Your task to perform on an android device: open a bookmark in the chrome app Image 0: 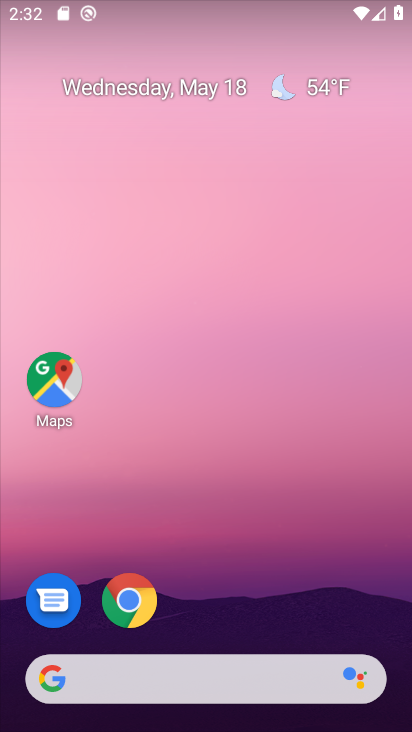
Step 0: click (145, 606)
Your task to perform on an android device: open a bookmark in the chrome app Image 1: 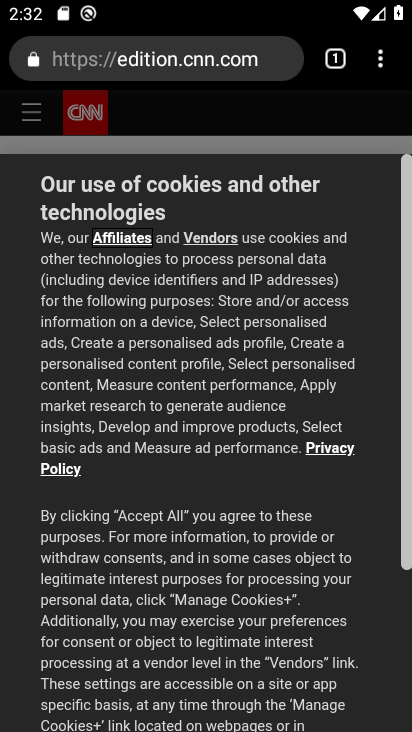
Step 1: click (379, 67)
Your task to perform on an android device: open a bookmark in the chrome app Image 2: 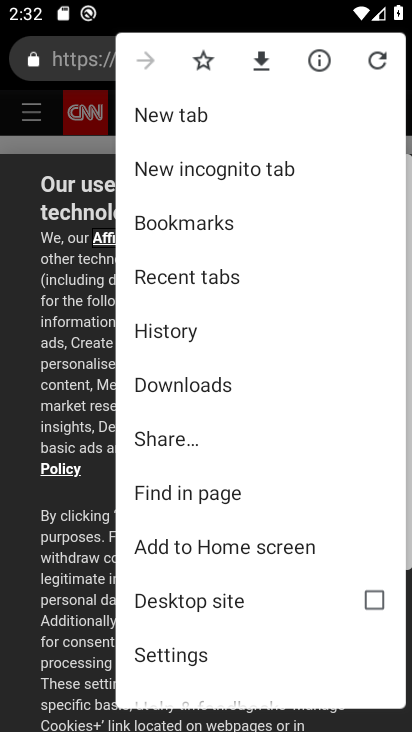
Step 2: click (180, 223)
Your task to perform on an android device: open a bookmark in the chrome app Image 3: 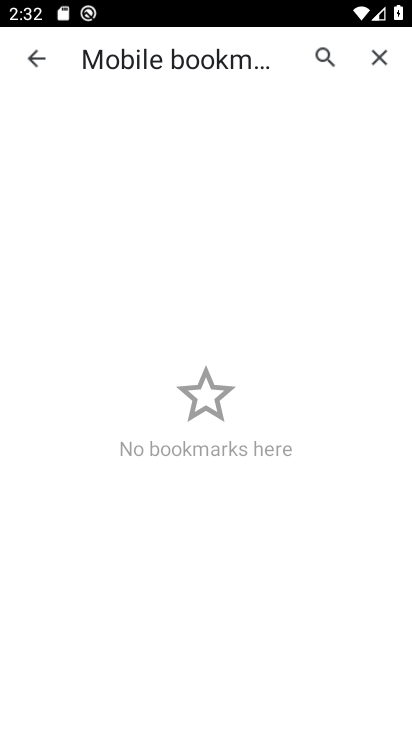
Step 3: click (382, 57)
Your task to perform on an android device: open a bookmark in the chrome app Image 4: 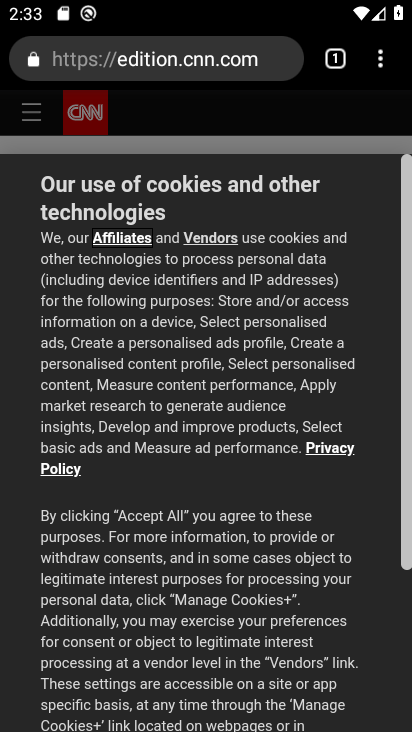
Step 4: click (334, 59)
Your task to perform on an android device: open a bookmark in the chrome app Image 5: 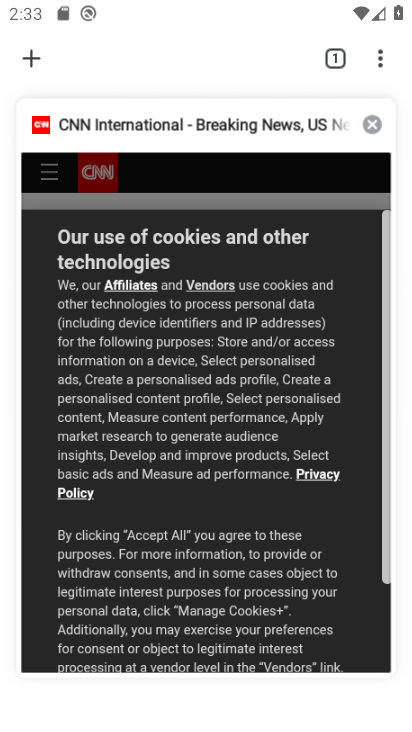
Step 5: click (27, 50)
Your task to perform on an android device: open a bookmark in the chrome app Image 6: 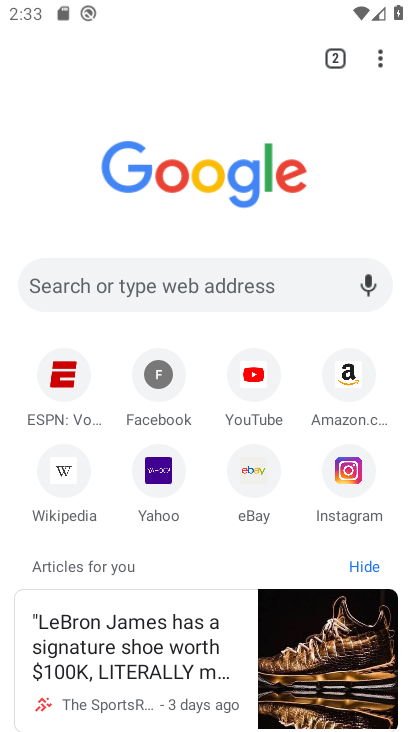
Step 6: click (243, 472)
Your task to perform on an android device: open a bookmark in the chrome app Image 7: 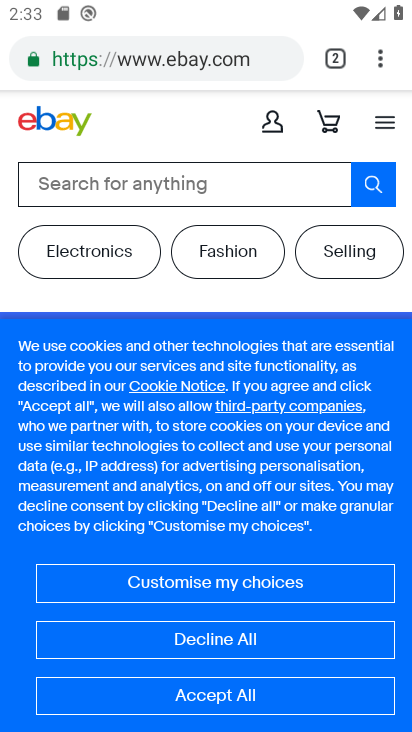
Step 7: task complete